Your task to perform on an android device: Go to settings Image 0: 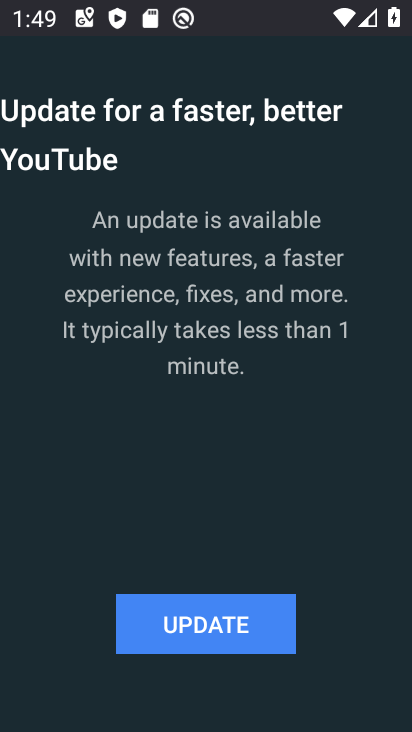
Step 0: press back button
Your task to perform on an android device: Go to settings Image 1: 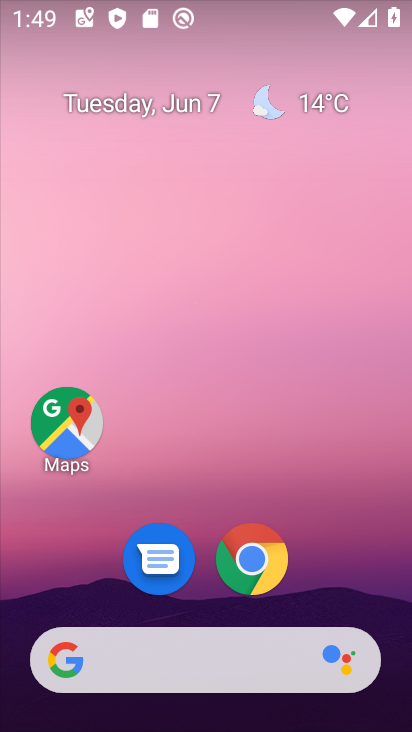
Step 1: drag from (320, 569) to (263, 105)
Your task to perform on an android device: Go to settings Image 2: 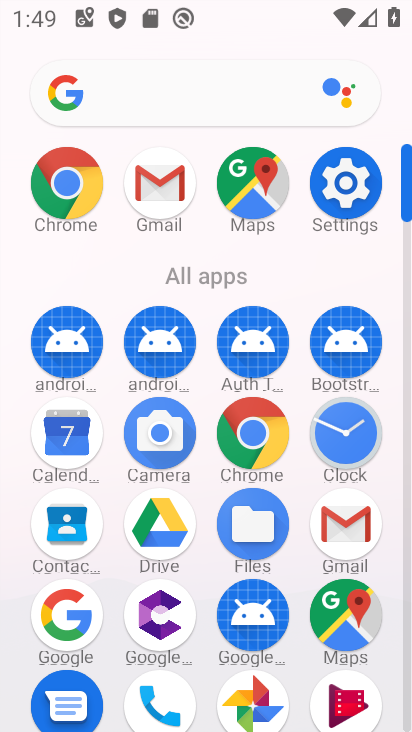
Step 2: click (343, 177)
Your task to perform on an android device: Go to settings Image 3: 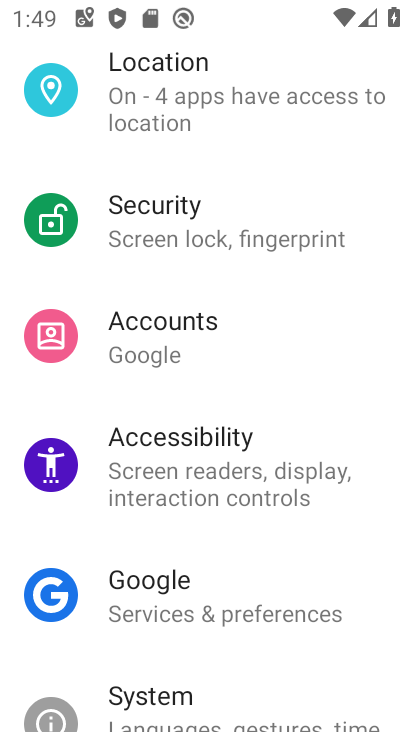
Step 3: drag from (229, 549) to (215, 147)
Your task to perform on an android device: Go to settings Image 4: 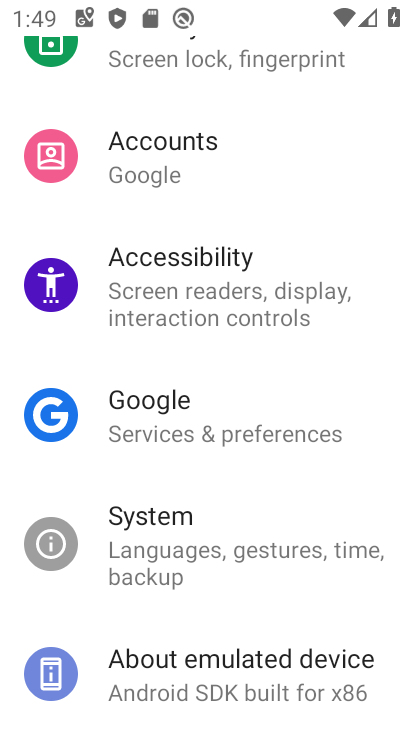
Step 4: drag from (196, 547) to (195, 193)
Your task to perform on an android device: Go to settings Image 5: 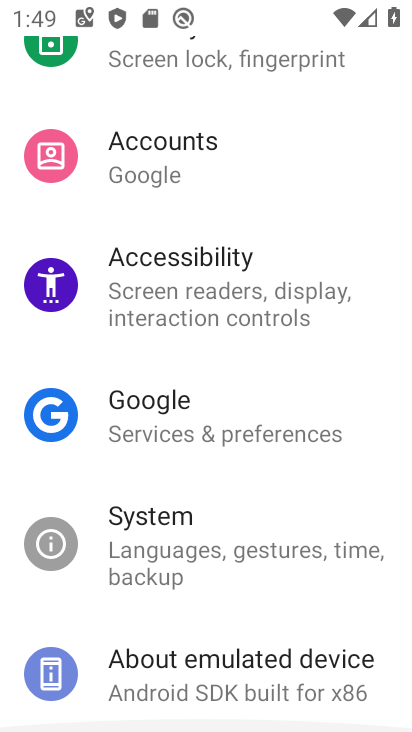
Step 5: drag from (213, 121) to (218, 543)
Your task to perform on an android device: Go to settings Image 6: 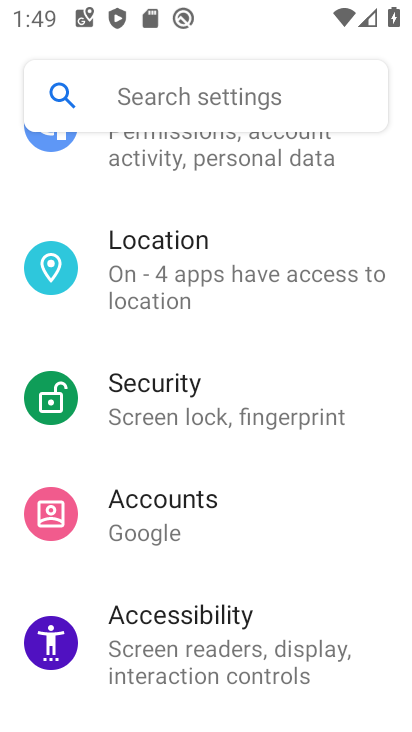
Step 6: drag from (238, 233) to (240, 602)
Your task to perform on an android device: Go to settings Image 7: 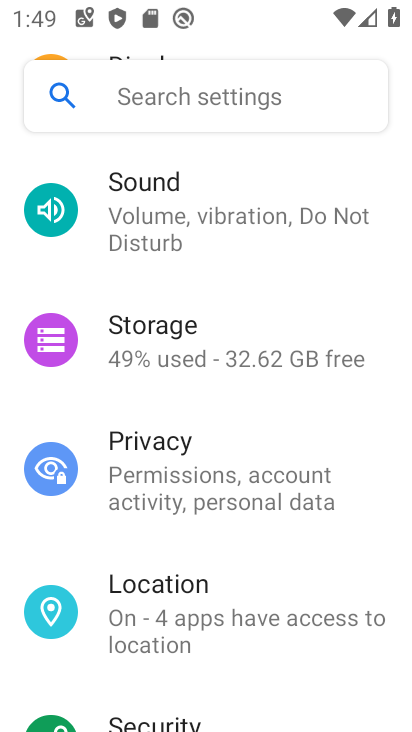
Step 7: drag from (242, 218) to (255, 585)
Your task to perform on an android device: Go to settings Image 8: 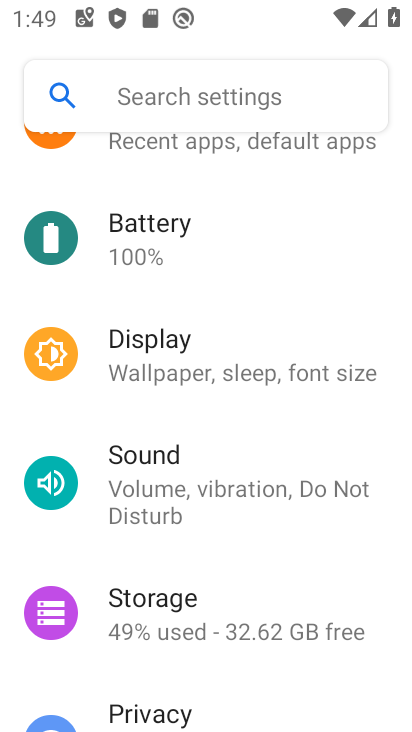
Step 8: drag from (238, 426) to (234, 576)
Your task to perform on an android device: Go to settings Image 9: 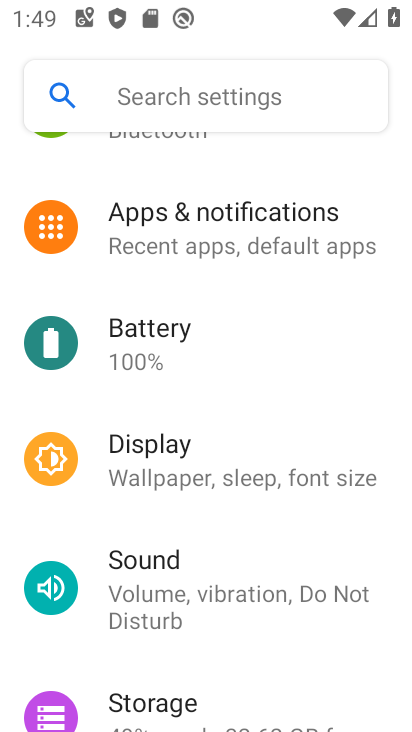
Step 9: drag from (236, 188) to (207, 564)
Your task to perform on an android device: Go to settings Image 10: 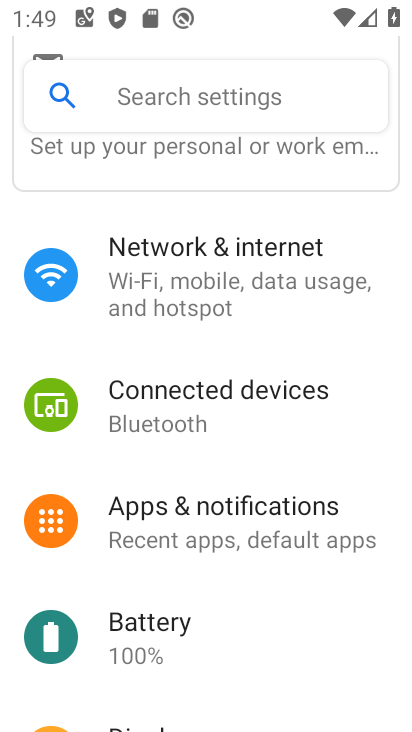
Step 10: click (244, 499)
Your task to perform on an android device: Go to settings Image 11: 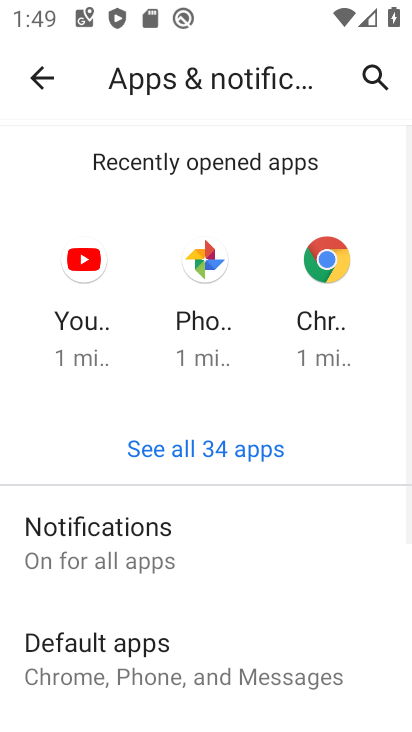
Step 11: click (32, 73)
Your task to perform on an android device: Go to settings Image 12: 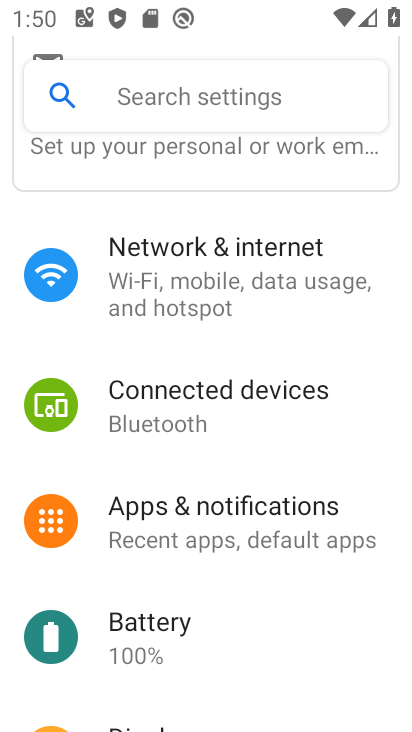
Step 12: task complete